Your task to perform on an android device: Open Google Chrome Image 0: 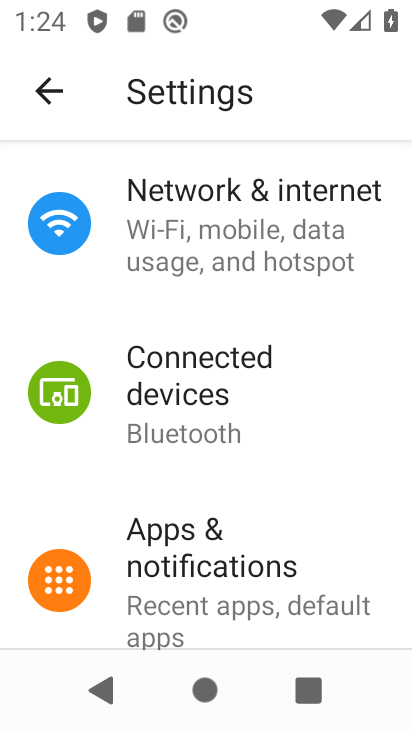
Step 0: press home button
Your task to perform on an android device: Open Google Chrome Image 1: 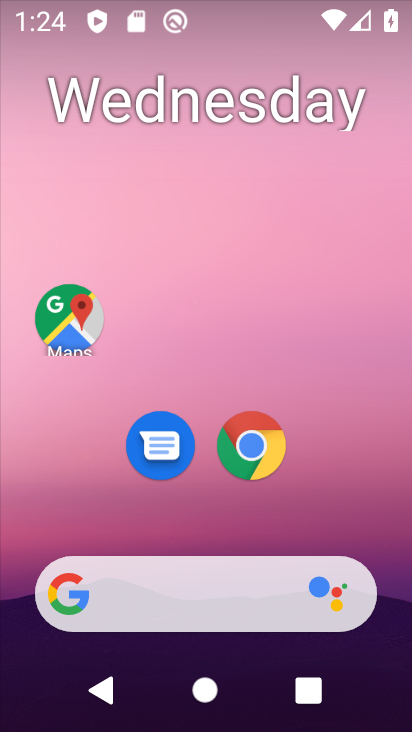
Step 1: click (254, 457)
Your task to perform on an android device: Open Google Chrome Image 2: 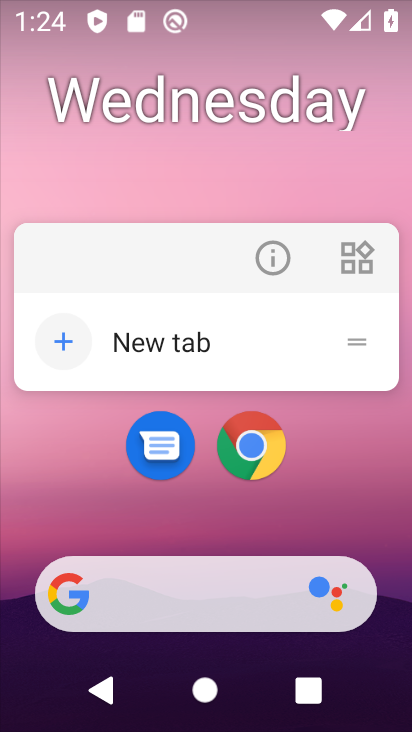
Step 2: click (258, 450)
Your task to perform on an android device: Open Google Chrome Image 3: 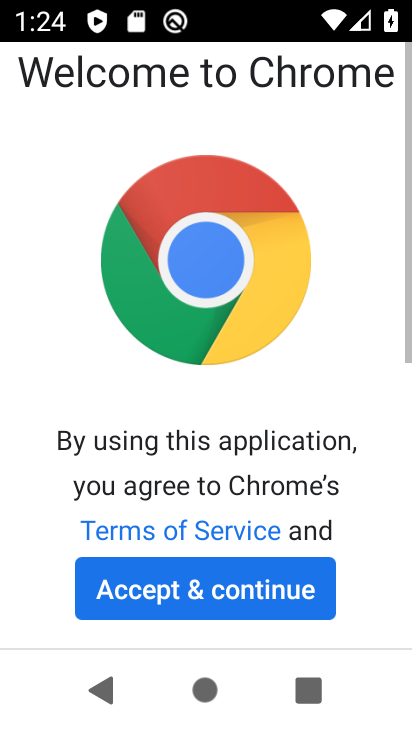
Step 3: click (252, 591)
Your task to perform on an android device: Open Google Chrome Image 4: 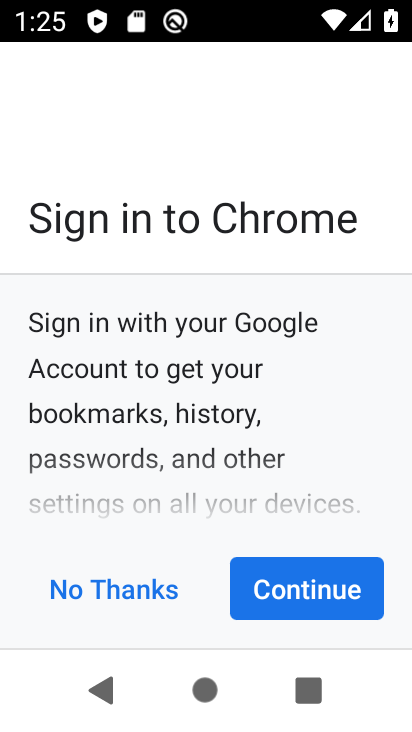
Step 4: click (367, 597)
Your task to perform on an android device: Open Google Chrome Image 5: 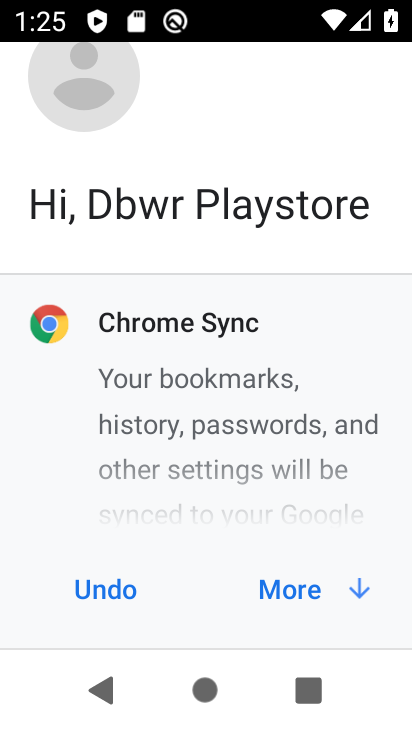
Step 5: click (349, 596)
Your task to perform on an android device: Open Google Chrome Image 6: 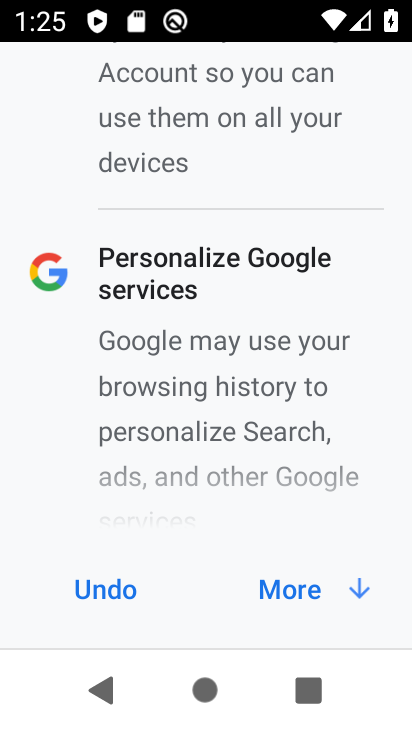
Step 6: click (327, 596)
Your task to perform on an android device: Open Google Chrome Image 7: 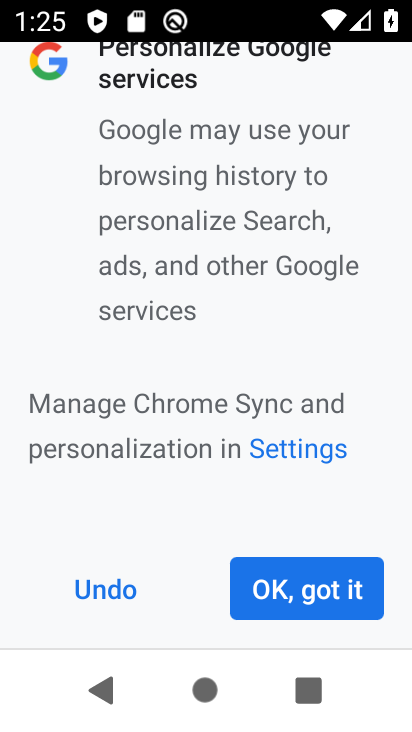
Step 7: click (326, 595)
Your task to perform on an android device: Open Google Chrome Image 8: 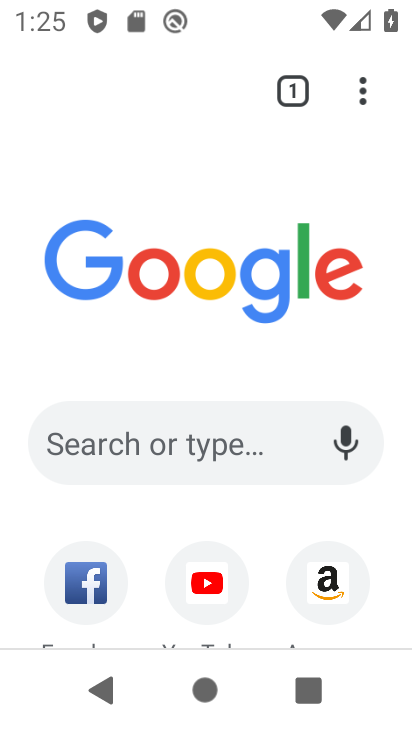
Step 8: task complete